Your task to perform on an android device: set an alarm Image 0: 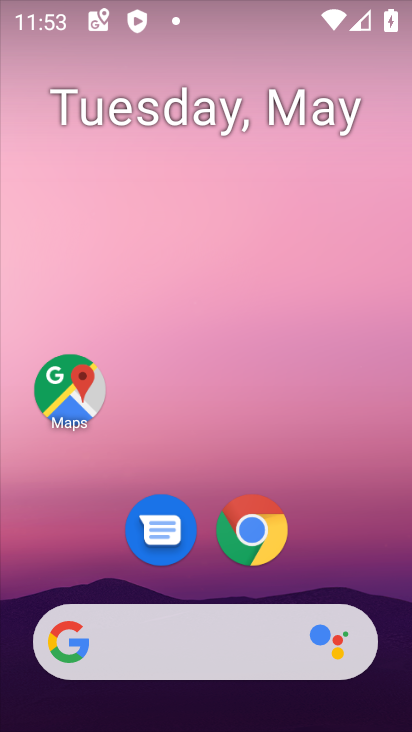
Step 0: drag from (182, 580) to (250, 180)
Your task to perform on an android device: set an alarm Image 1: 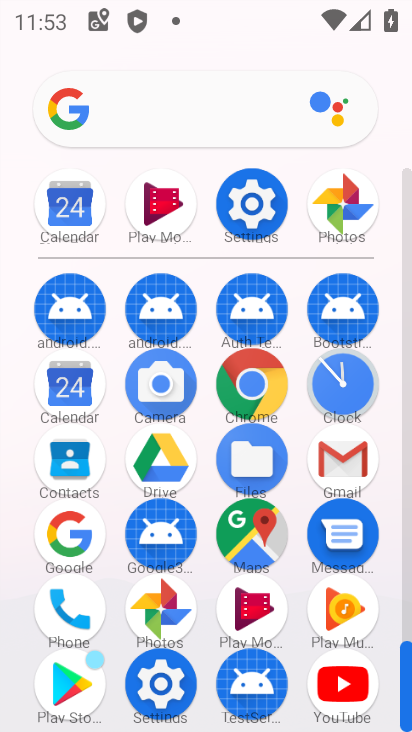
Step 1: click (339, 375)
Your task to perform on an android device: set an alarm Image 2: 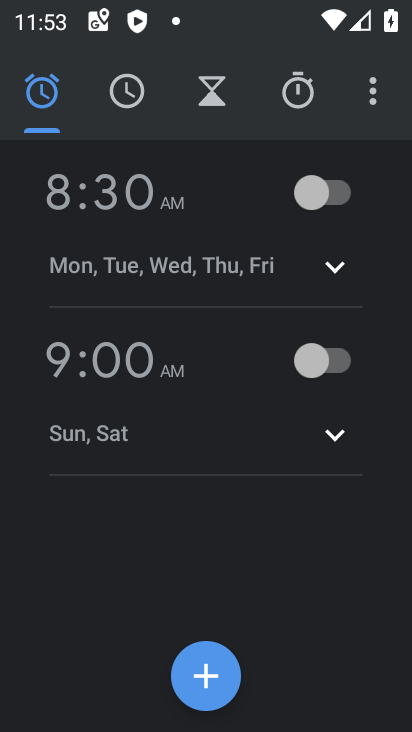
Step 2: click (313, 183)
Your task to perform on an android device: set an alarm Image 3: 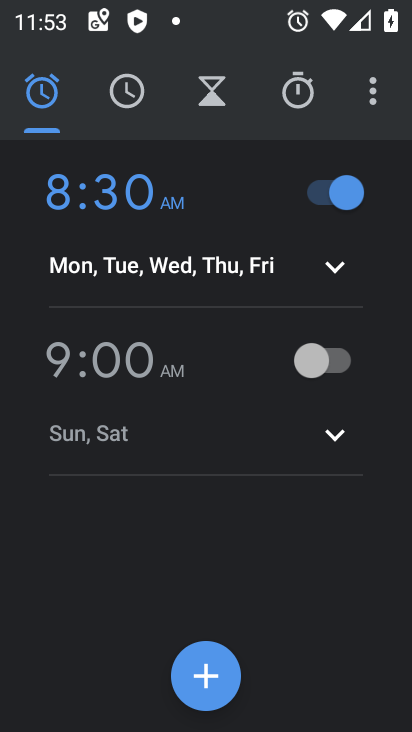
Step 3: task complete